Your task to perform on an android device: Open network settings Image 0: 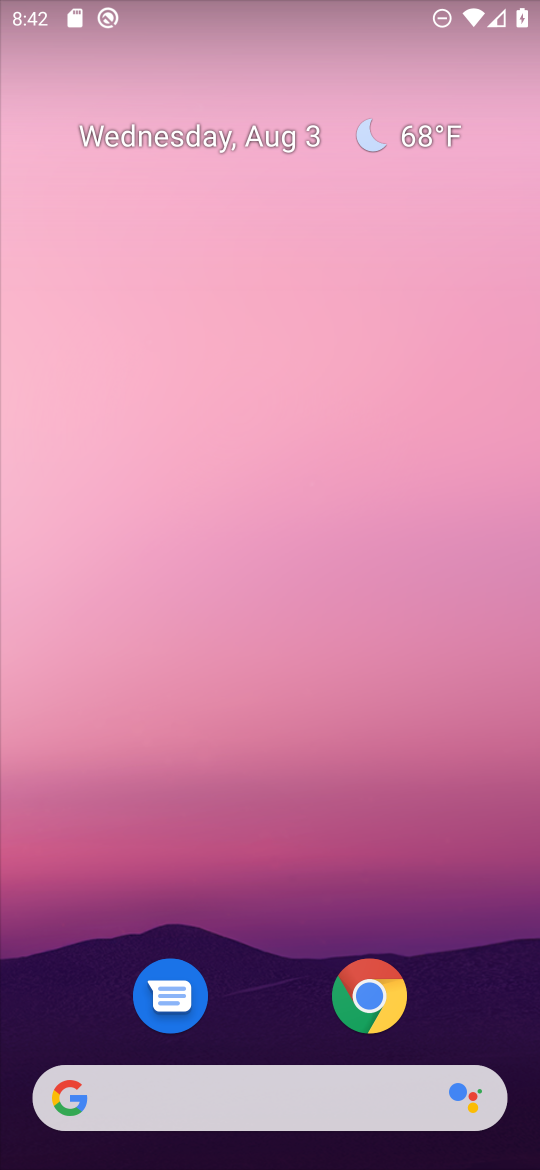
Step 0: drag from (290, 897) to (320, 0)
Your task to perform on an android device: Open network settings Image 1: 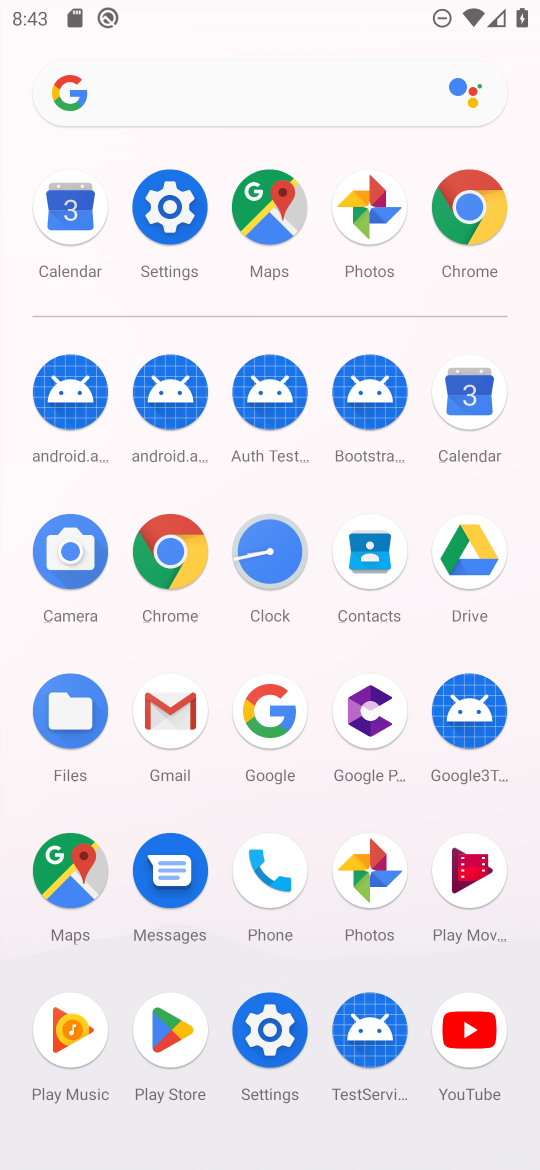
Step 1: click (175, 217)
Your task to perform on an android device: Open network settings Image 2: 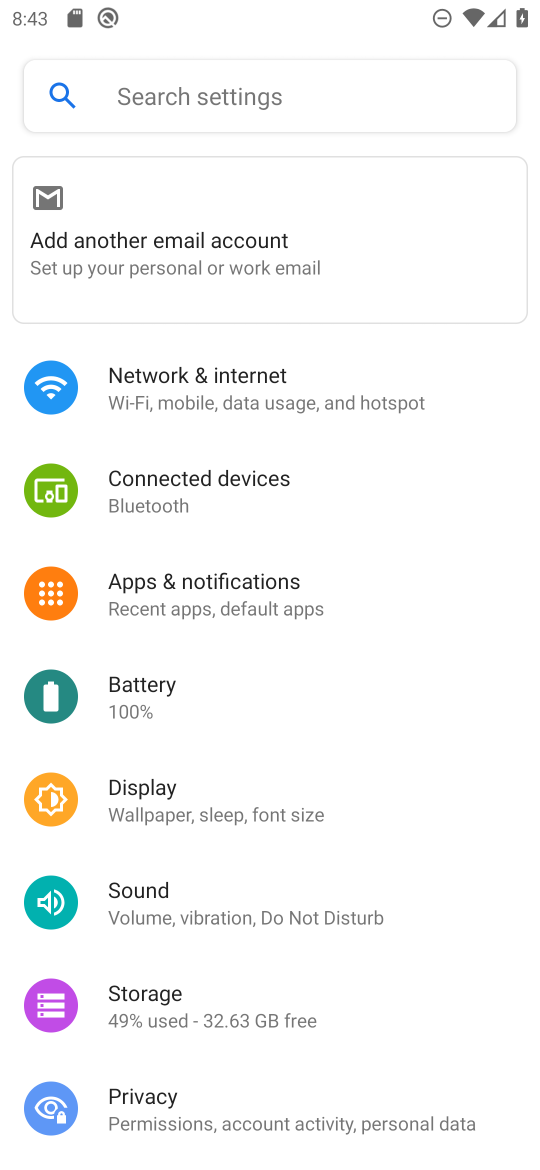
Step 2: click (188, 381)
Your task to perform on an android device: Open network settings Image 3: 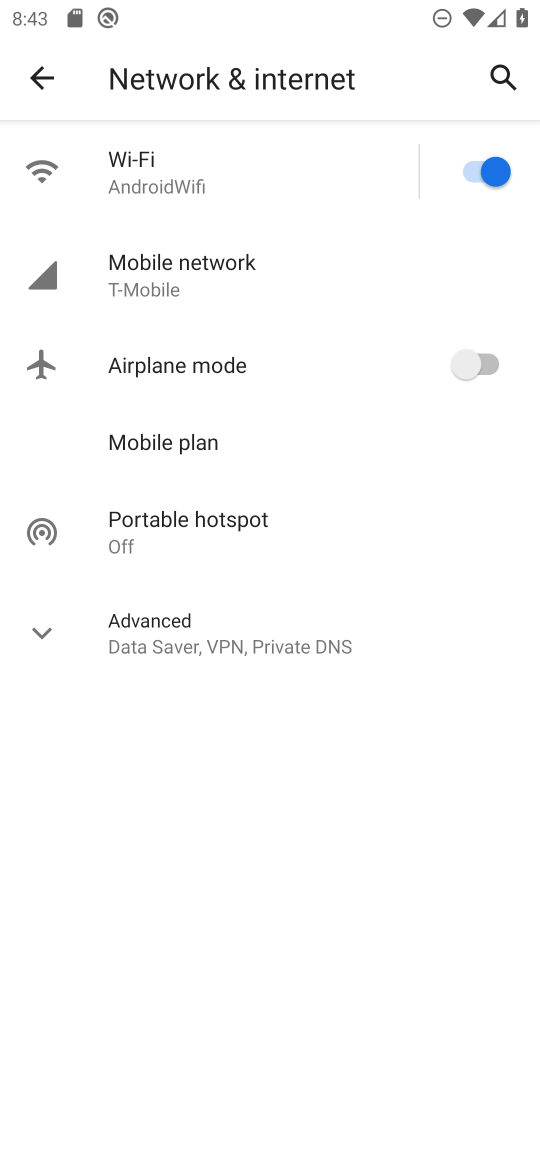
Step 3: task complete